Your task to perform on an android device: turn off location Image 0: 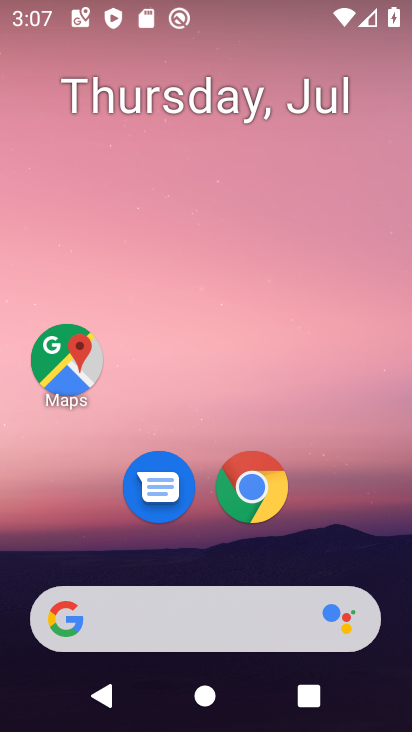
Step 0: drag from (249, 534) to (247, 57)
Your task to perform on an android device: turn off location Image 1: 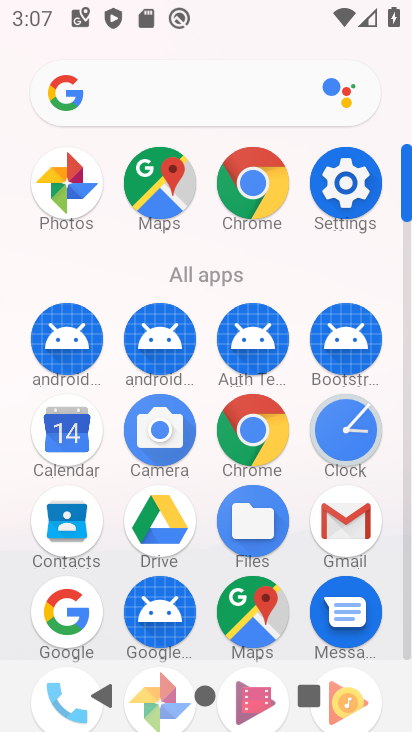
Step 1: click (319, 207)
Your task to perform on an android device: turn off location Image 2: 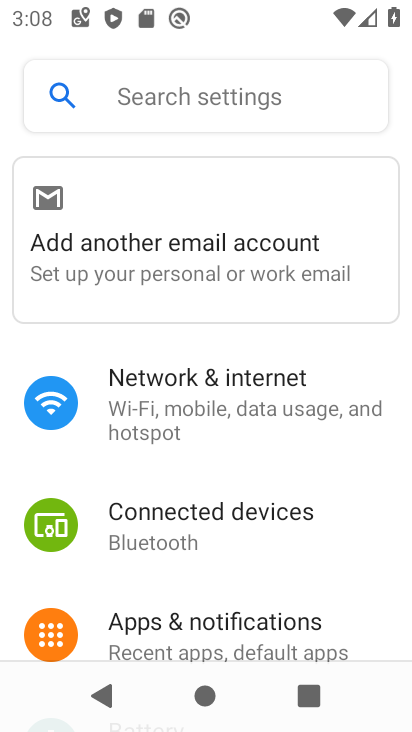
Step 2: drag from (165, 627) to (247, 0)
Your task to perform on an android device: turn off location Image 3: 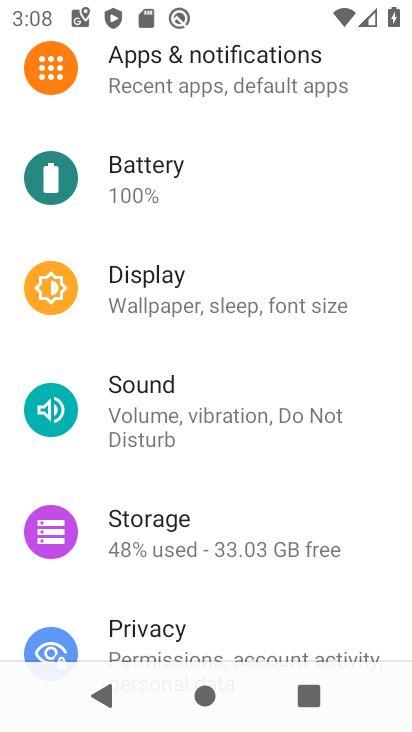
Step 3: drag from (187, 584) to (231, 131)
Your task to perform on an android device: turn off location Image 4: 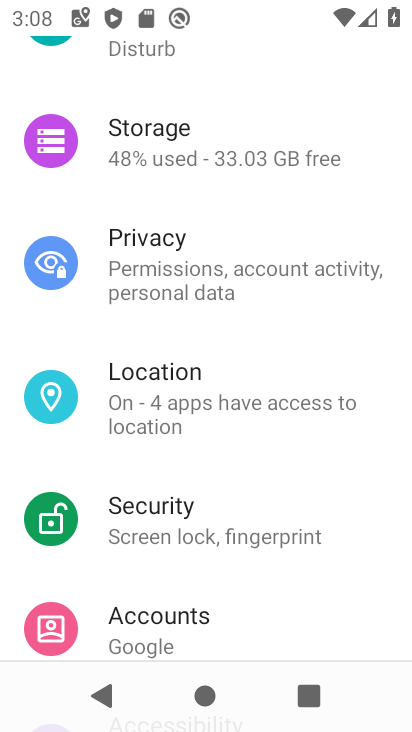
Step 4: click (171, 419)
Your task to perform on an android device: turn off location Image 5: 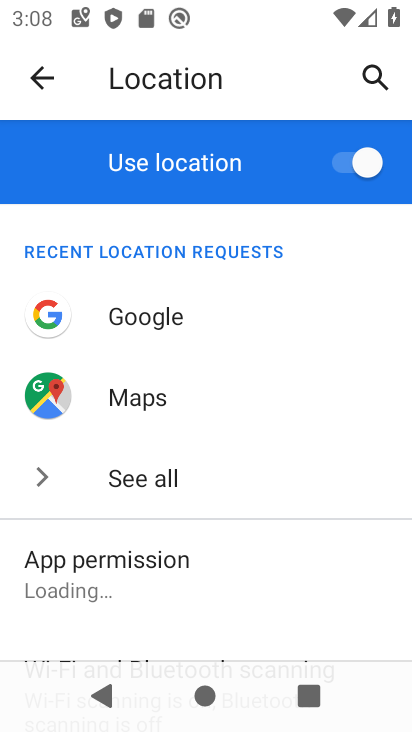
Step 5: click (357, 158)
Your task to perform on an android device: turn off location Image 6: 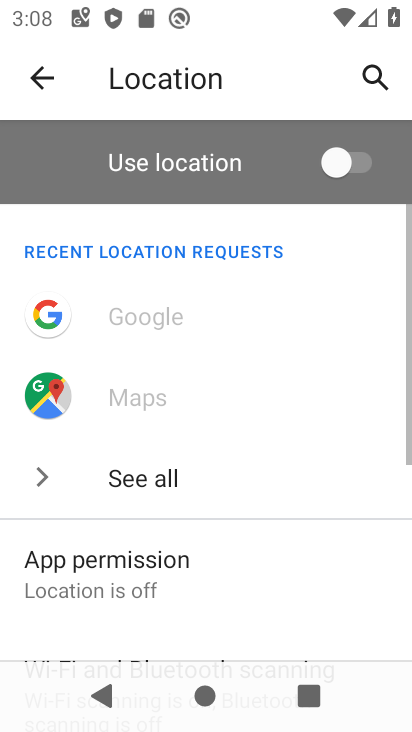
Step 6: task complete